Your task to perform on an android device: See recent photos Image 0: 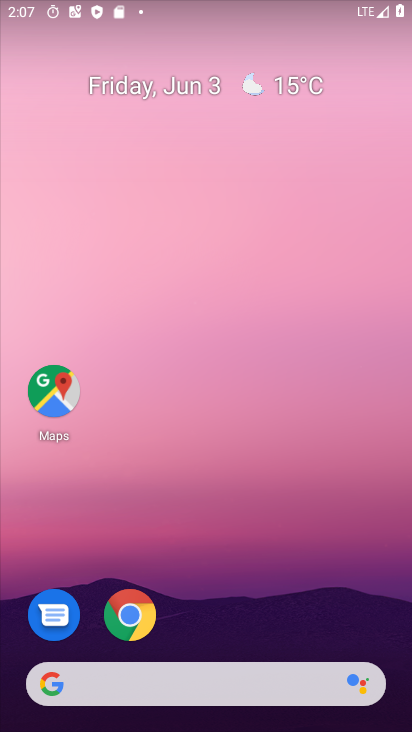
Step 0: drag from (196, 624) to (252, 216)
Your task to perform on an android device: See recent photos Image 1: 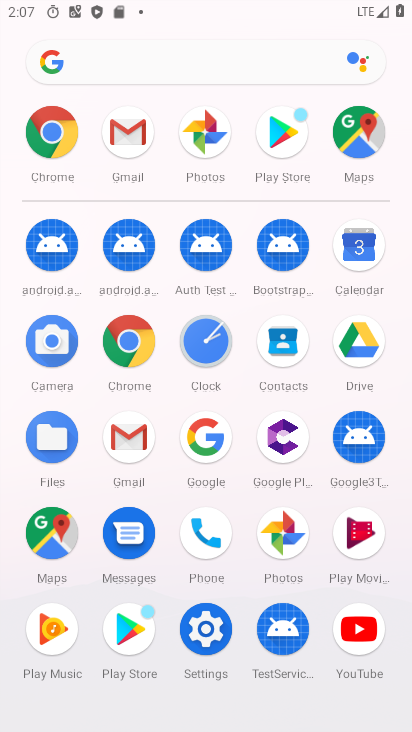
Step 1: click (125, 56)
Your task to perform on an android device: See recent photos Image 2: 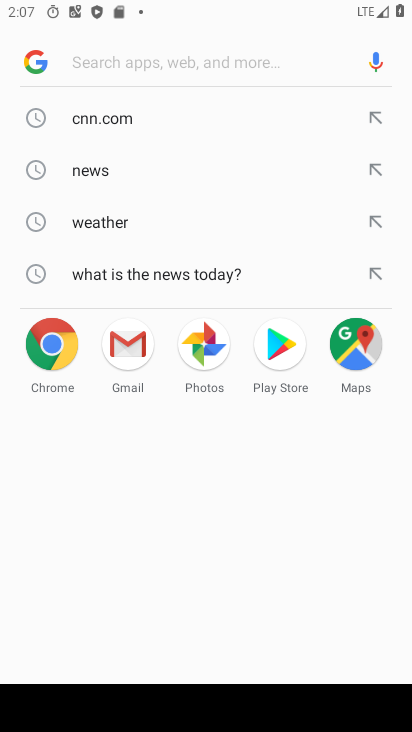
Step 2: type "recent photos"
Your task to perform on an android device: See recent photos Image 3: 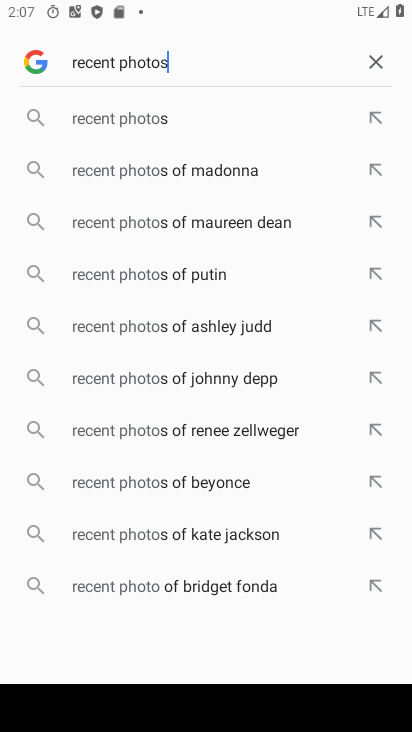
Step 3: type ""
Your task to perform on an android device: See recent photos Image 4: 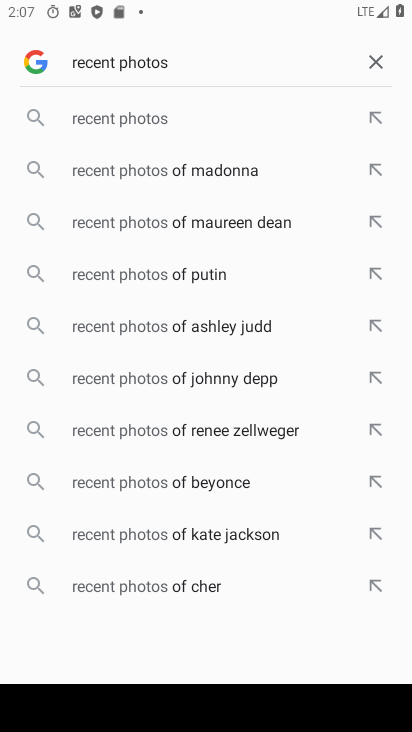
Step 4: click (82, 127)
Your task to perform on an android device: See recent photos Image 5: 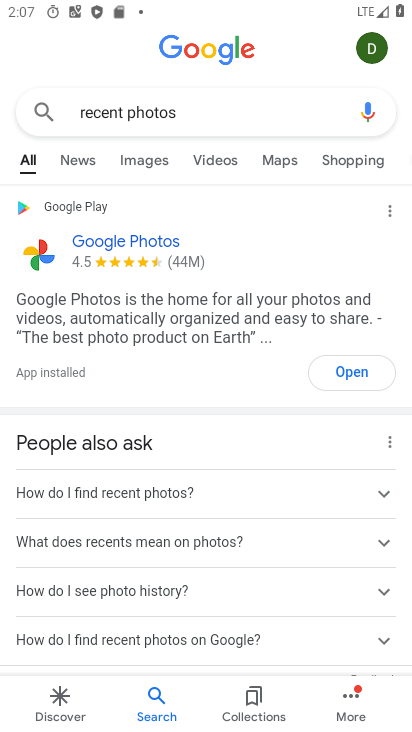
Step 5: task complete